Your task to perform on an android device: Toggle the flashlight Image 0: 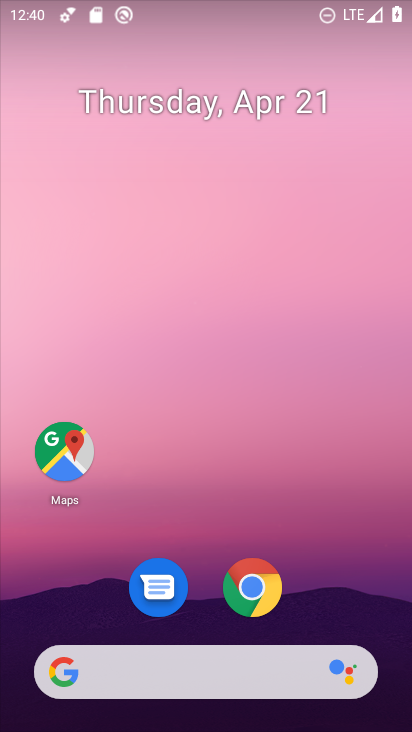
Step 0: drag from (339, 574) to (276, 67)
Your task to perform on an android device: Toggle the flashlight Image 1: 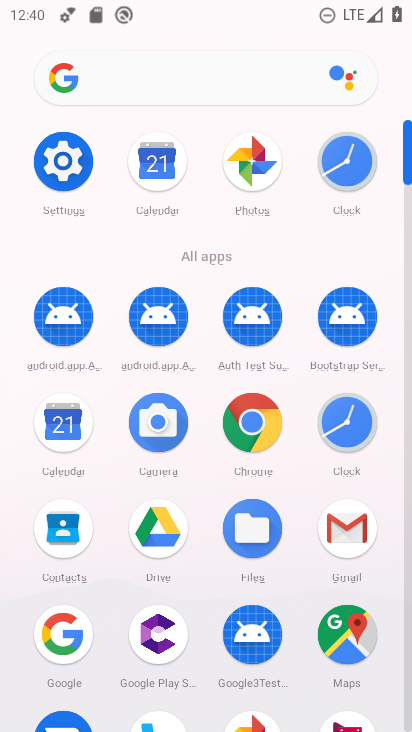
Step 1: click (63, 163)
Your task to perform on an android device: Toggle the flashlight Image 2: 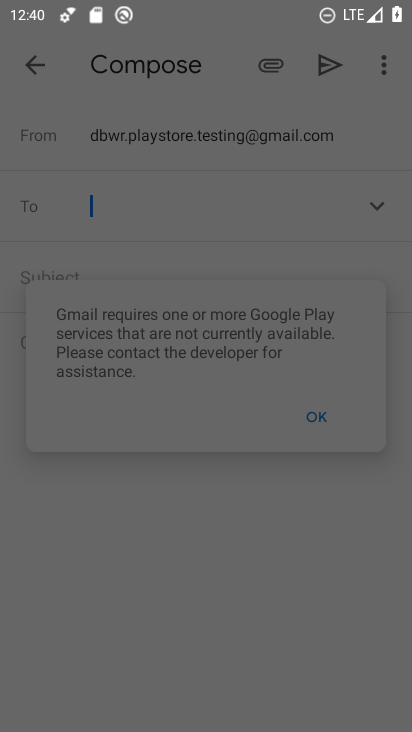
Step 2: click (249, 518)
Your task to perform on an android device: Toggle the flashlight Image 3: 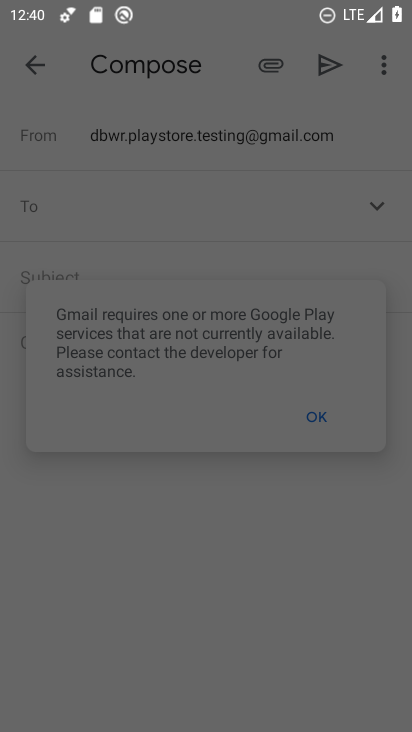
Step 3: press home button
Your task to perform on an android device: Toggle the flashlight Image 4: 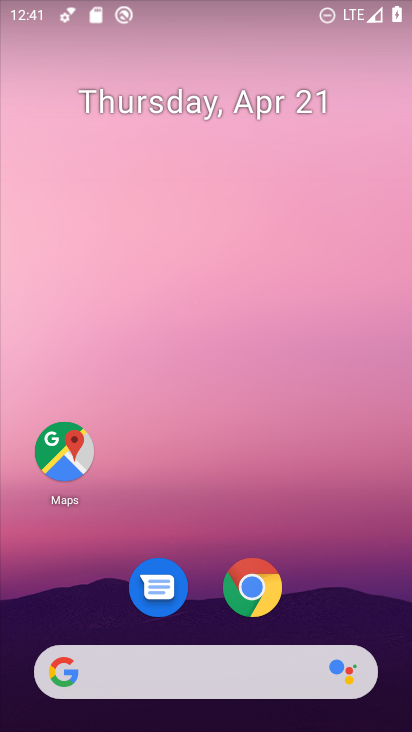
Step 4: drag from (193, 472) to (183, 2)
Your task to perform on an android device: Toggle the flashlight Image 5: 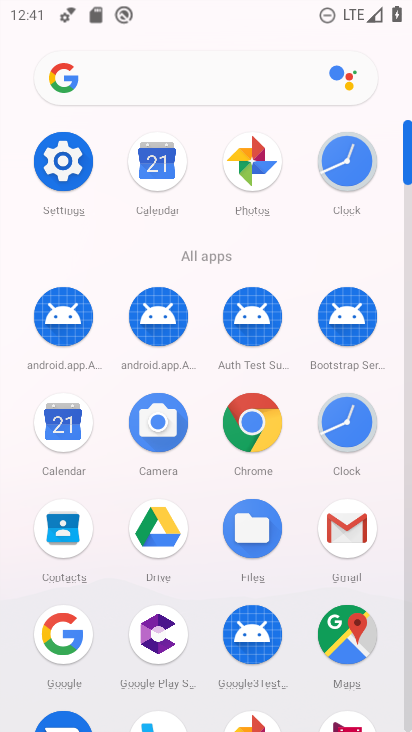
Step 5: click (59, 172)
Your task to perform on an android device: Toggle the flashlight Image 6: 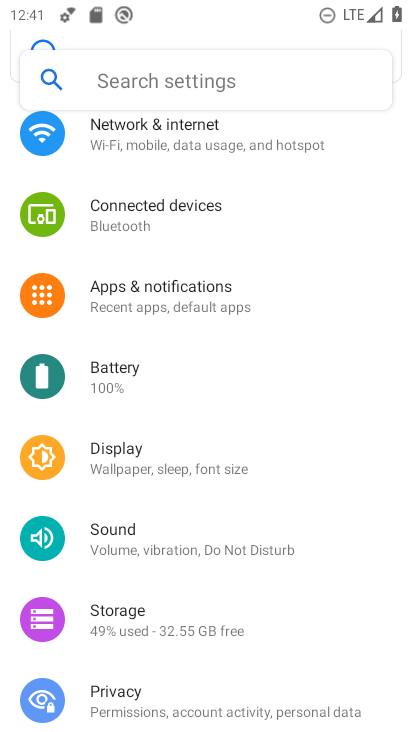
Step 6: click (128, 293)
Your task to perform on an android device: Toggle the flashlight Image 7: 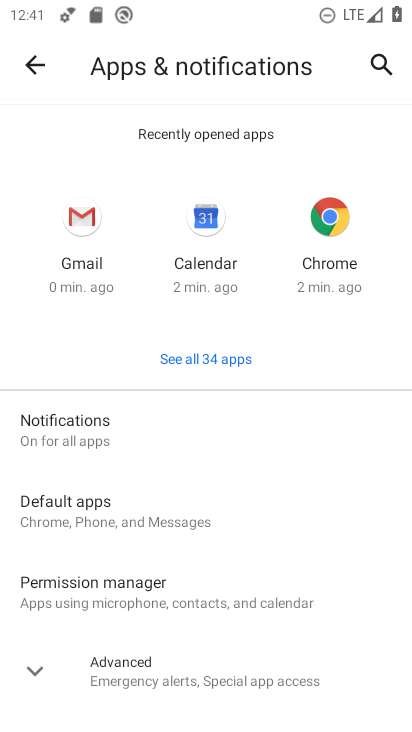
Step 7: task complete